Your task to perform on an android device: Open internet settings Image 0: 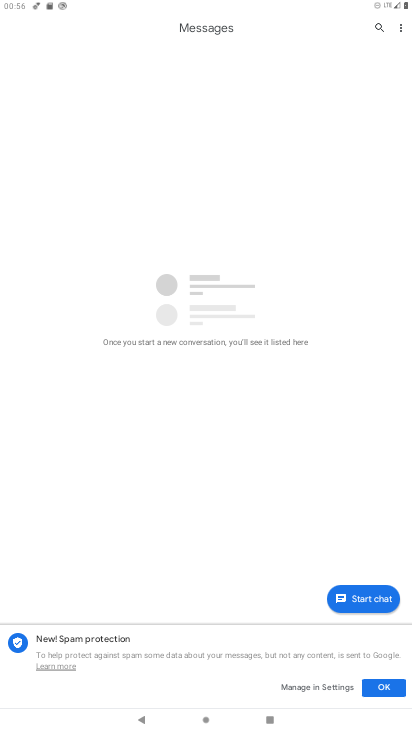
Step 0: press home button
Your task to perform on an android device: Open internet settings Image 1: 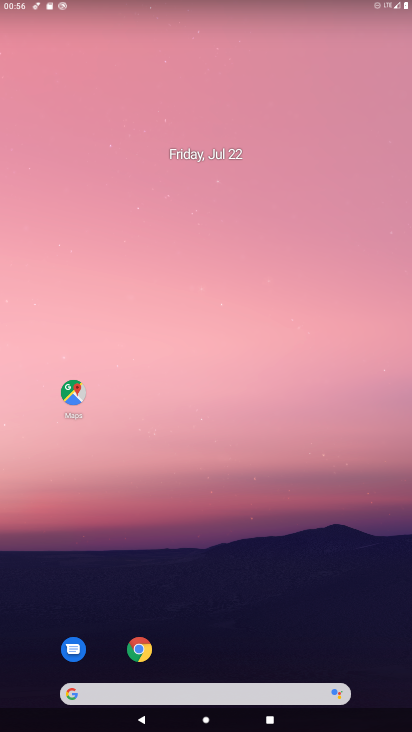
Step 1: drag from (227, 703) to (218, 228)
Your task to perform on an android device: Open internet settings Image 2: 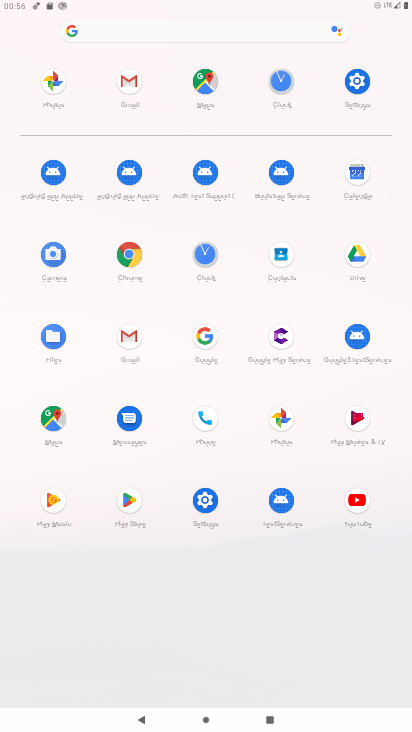
Step 2: click (361, 78)
Your task to perform on an android device: Open internet settings Image 3: 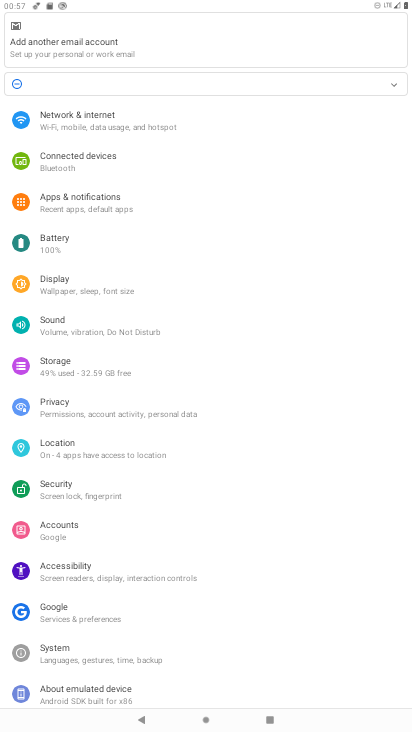
Step 3: click (102, 120)
Your task to perform on an android device: Open internet settings Image 4: 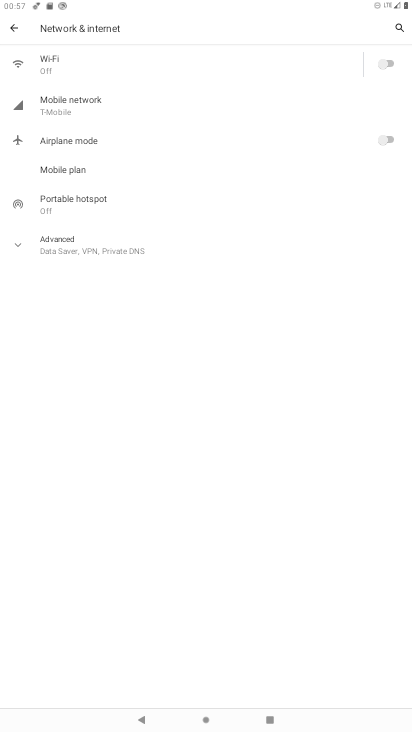
Step 4: task complete